Your task to perform on an android device: Open Google Image 0: 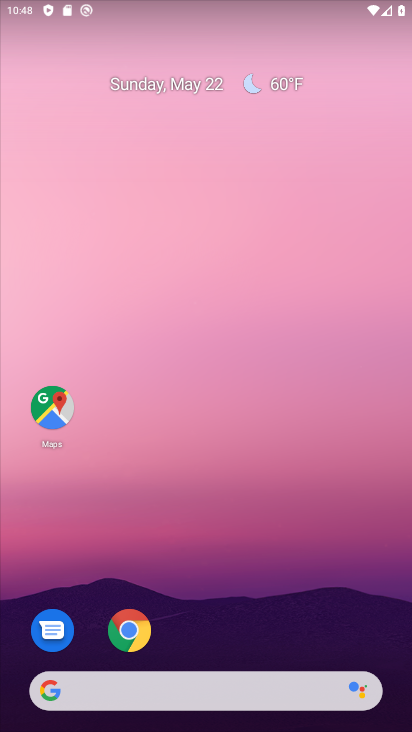
Step 0: drag from (265, 629) to (162, 64)
Your task to perform on an android device: Open Google Image 1: 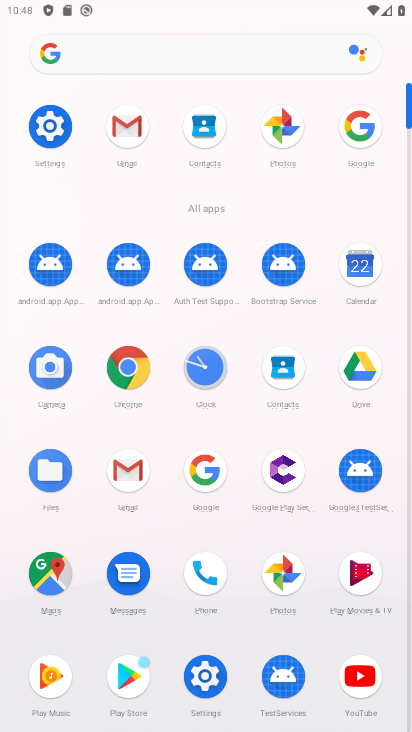
Step 1: click (200, 469)
Your task to perform on an android device: Open Google Image 2: 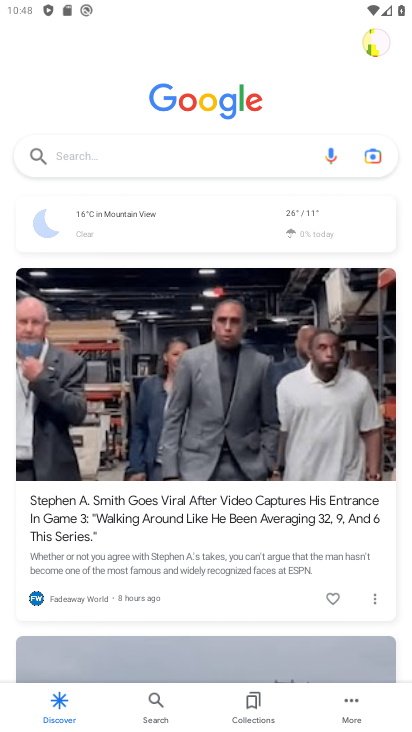
Step 2: task complete